Your task to perform on an android device: What's the news in Japan? Image 0: 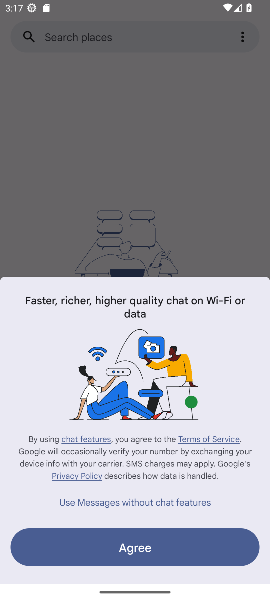
Step 0: press home button
Your task to perform on an android device: What's the news in Japan? Image 1: 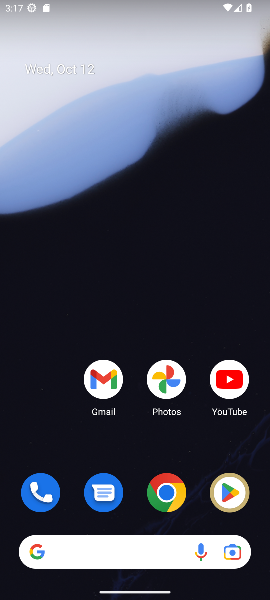
Step 1: click (160, 497)
Your task to perform on an android device: What's the news in Japan? Image 2: 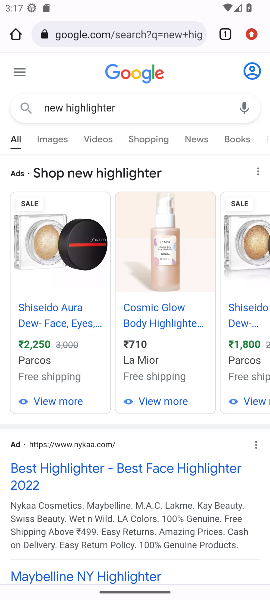
Step 2: click (129, 105)
Your task to perform on an android device: What's the news in Japan? Image 3: 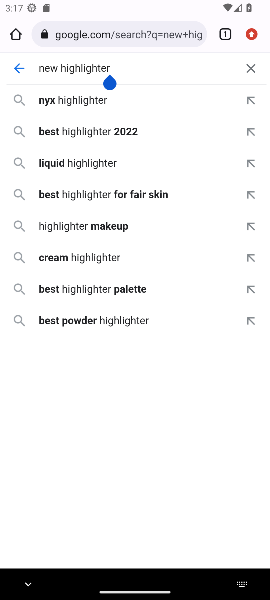
Step 3: click (258, 63)
Your task to perform on an android device: What's the news in Japan? Image 4: 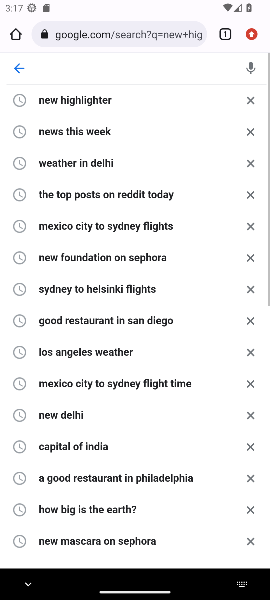
Step 4: type "japan"
Your task to perform on an android device: What's the news in Japan? Image 5: 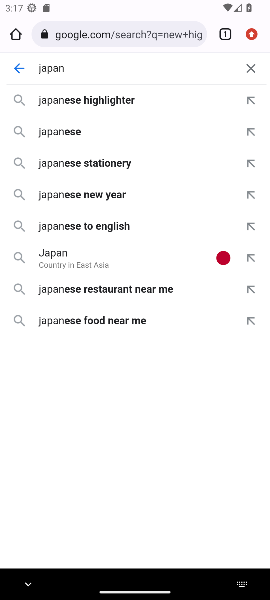
Step 5: click (60, 258)
Your task to perform on an android device: What's the news in Japan? Image 6: 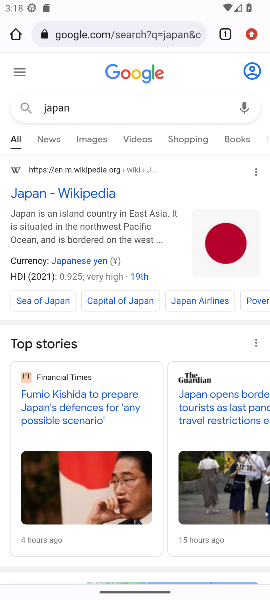
Step 6: click (45, 140)
Your task to perform on an android device: What's the news in Japan? Image 7: 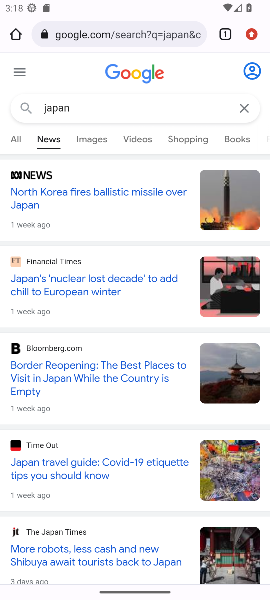
Step 7: click (44, 299)
Your task to perform on an android device: What's the news in Japan? Image 8: 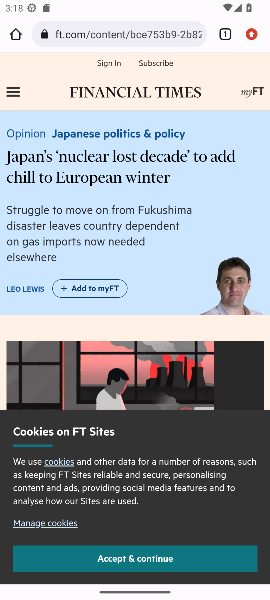
Step 8: task complete